Your task to perform on an android device: Show me productivity apps on the Play Store Image 0: 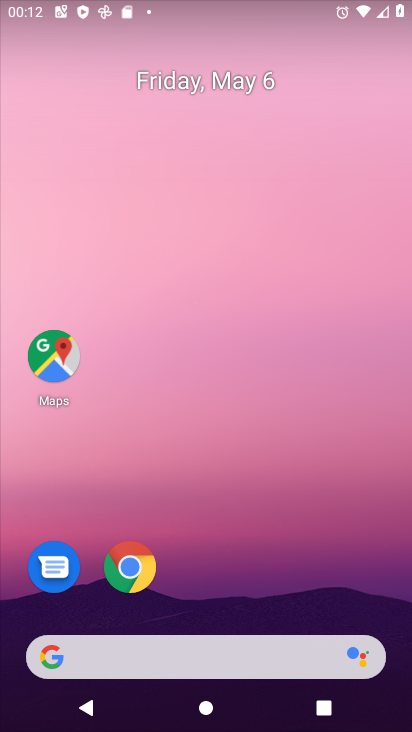
Step 0: drag from (193, 582) to (193, 203)
Your task to perform on an android device: Show me productivity apps on the Play Store Image 1: 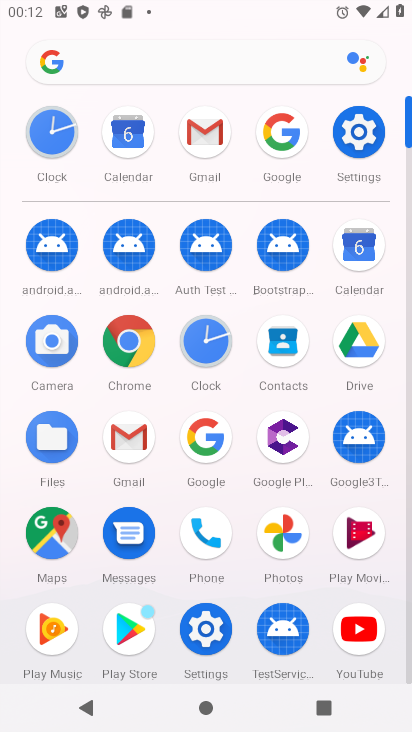
Step 1: click (137, 611)
Your task to perform on an android device: Show me productivity apps on the Play Store Image 2: 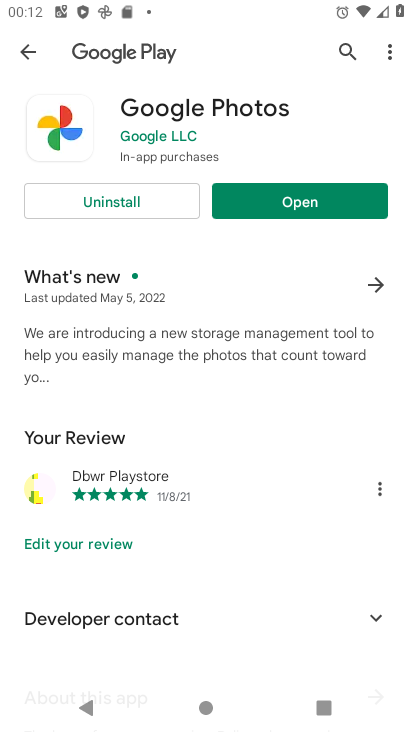
Step 2: click (250, 200)
Your task to perform on an android device: Show me productivity apps on the Play Store Image 3: 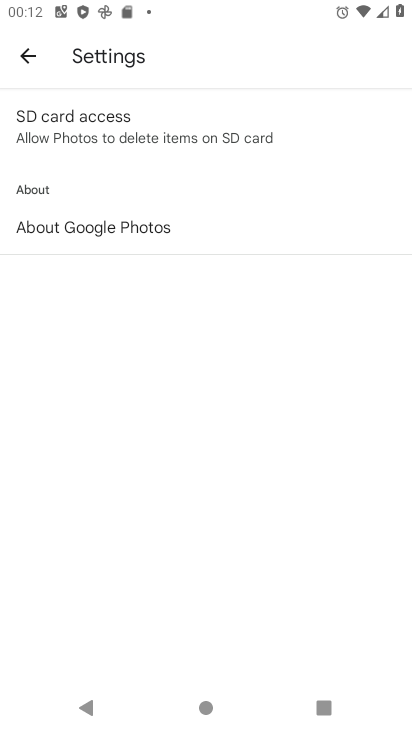
Step 3: click (22, 57)
Your task to perform on an android device: Show me productivity apps on the Play Store Image 4: 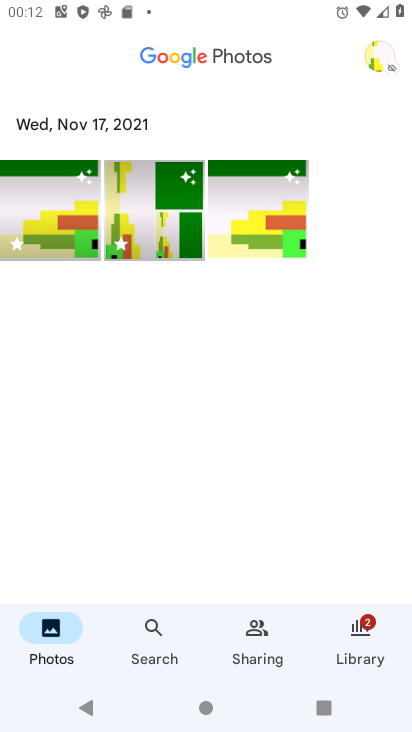
Step 4: click (159, 637)
Your task to perform on an android device: Show me productivity apps on the Play Store Image 5: 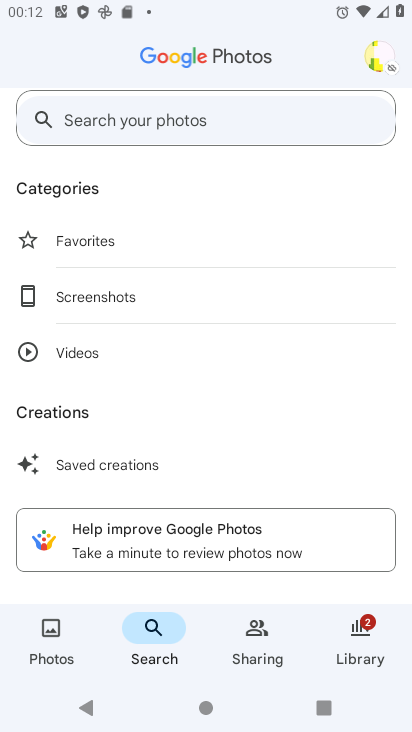
Step 5: press home button
Your task to perform on an android device: Show me productivity apps on the Play Store Image 6: 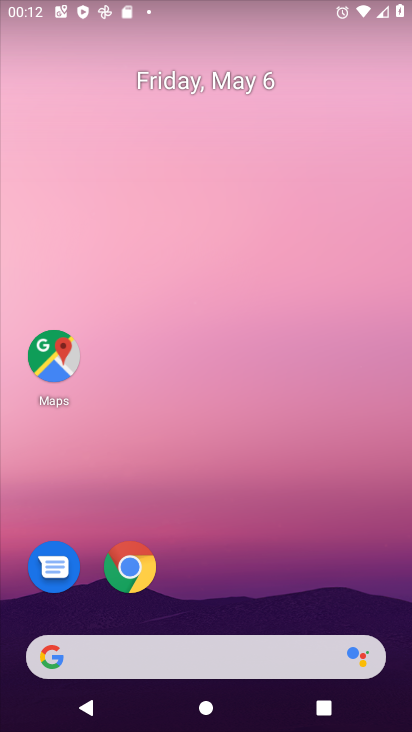
Step 6: drag from (213, 552) to (189, 142)
Your task to perform on an android device: Show me productivity apps on the Play Store Image 7: 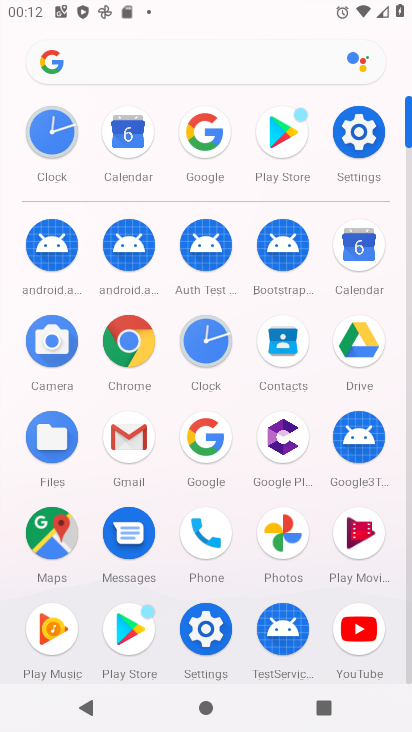
Step 7: click (274, 139)
Your task to perform on an android device: Show me productivity apps on the Play Store Image 8: 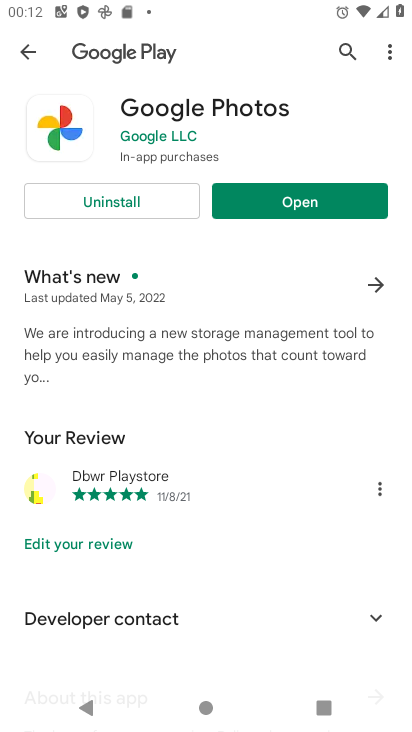
Step 8: click (21, 58)
Your task to perform on an android device: Show me productivity apps on the Play Store Image 9: 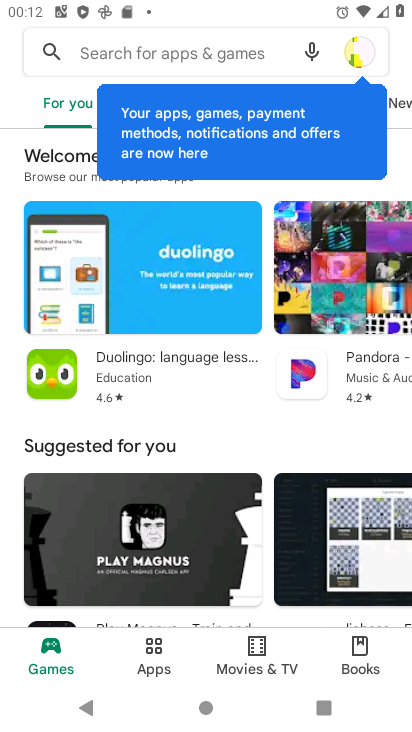
Step 9: click (161, 654)
Your task to perform on an android device: Show me productivity apps on the Play Store Image 10: 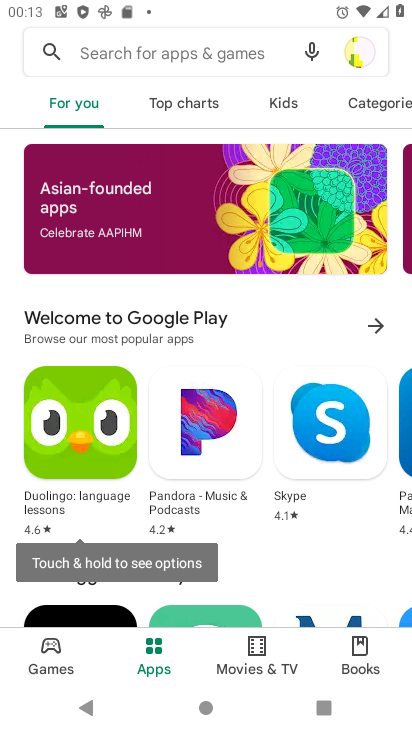
Step 10: click (361, 104)
Your task to perform on an android device: Show me productivity apps on the Play Store Image 11: 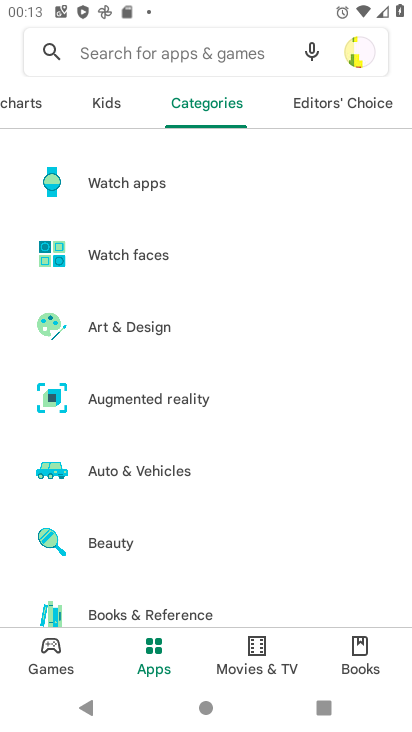
Step 11: drag from (205, 572) to (229, 191)
Your task to perform on an android device: Show me productivity apps on the Play Store Image 12: 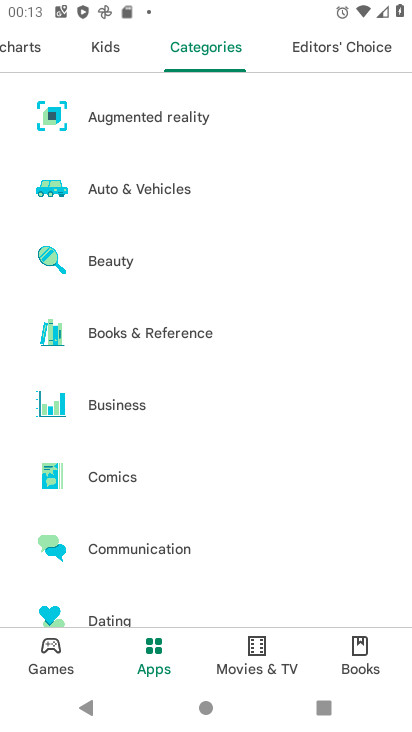
Step 12: drag from (210, 552) to (241, 227)
Your task to perform on an android device: Show me productivity apps on the Play Store Image 13: 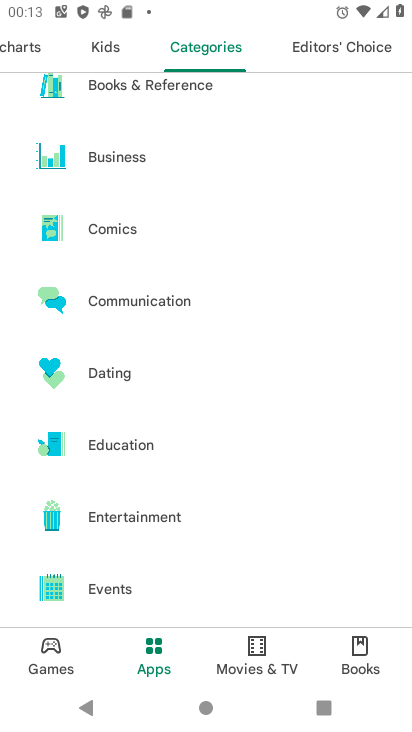
Step 13: drag from (201, 570) to (212, 336)
Your task to perform on an android device: Show me productivity apps on the Play Store Image 14: 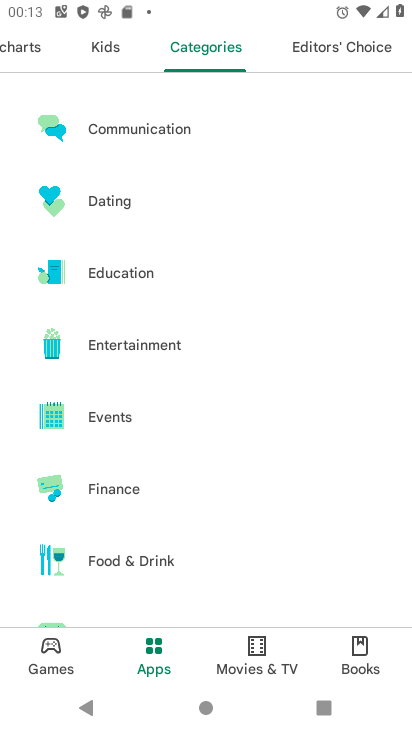
Step 14: drag from (188, 499) to (208, 322)
Your task to perform on an android device: Show me productivity apps on the Play Store Image 15: 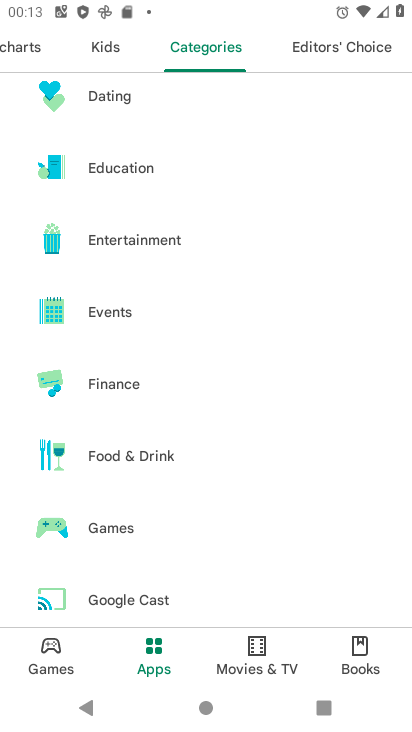
Step 15: drag from (204, 566) to (231, 259)
Your task to perform on an android device: Show me productivity apps on the Play Store Image 16: 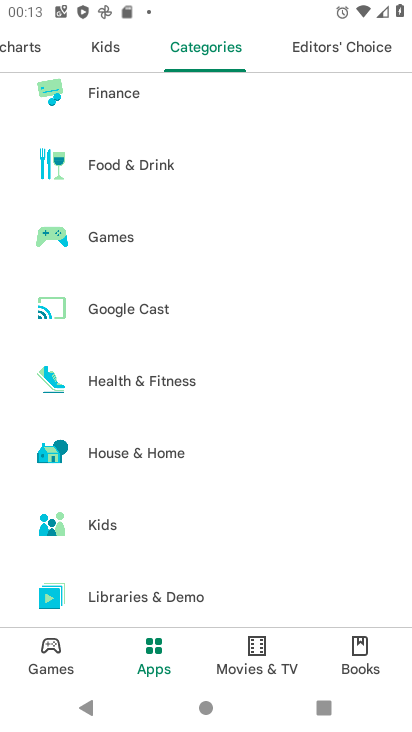
Step 16: drag from (210, 550) to (227, 211)
Your task to perform on an android device: Show me productivity apps on the Play Store Image 17: 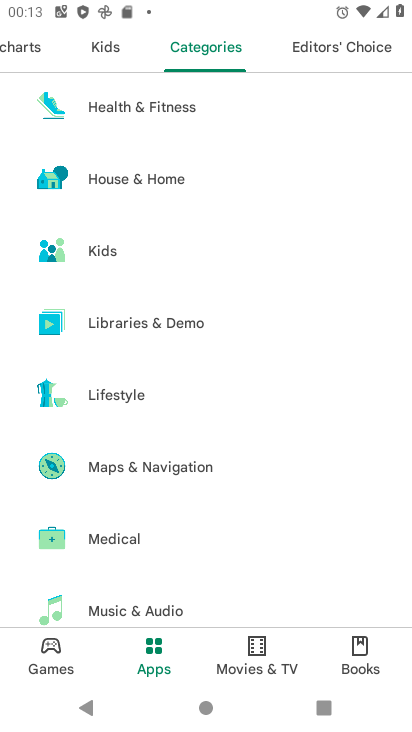
Step 17: drag from (227, 542) to (225, 151)
Your task to perform on an android device: Show me productivity apps on the Play Store Image 18: 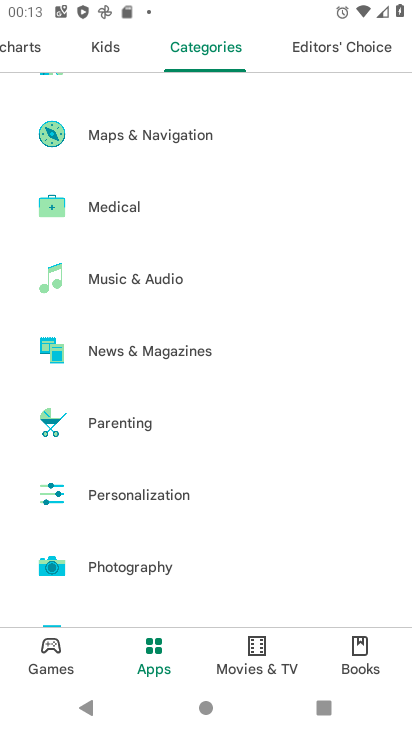
Step 18: drag from (209, 540) to (217, 252)
Your task to perform on an android device: Show me productivity apps on the Play Store Image 19: 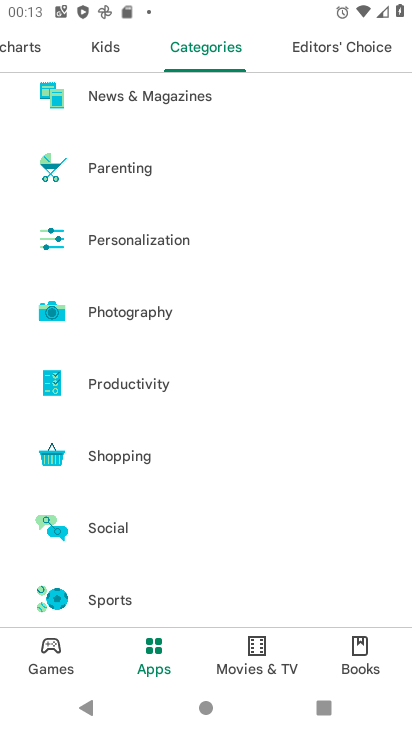
Step 19: click (175, 387)
Your task to perform on an android device: Show me productivity apps on the Play Store Image 20: 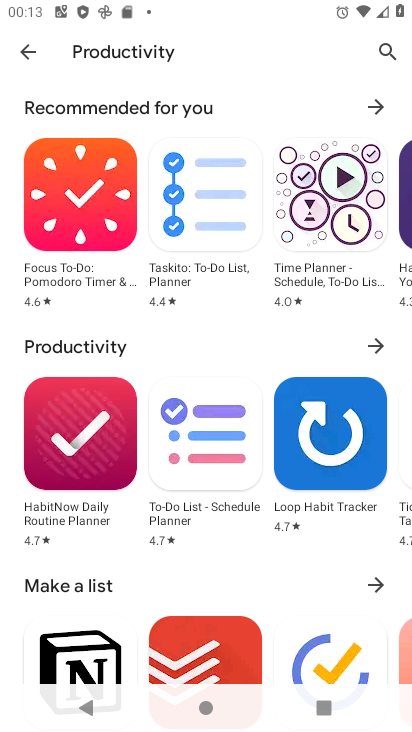
Step 20: task complete